Your task to perform on an android device: Open CNN.com Image 0: 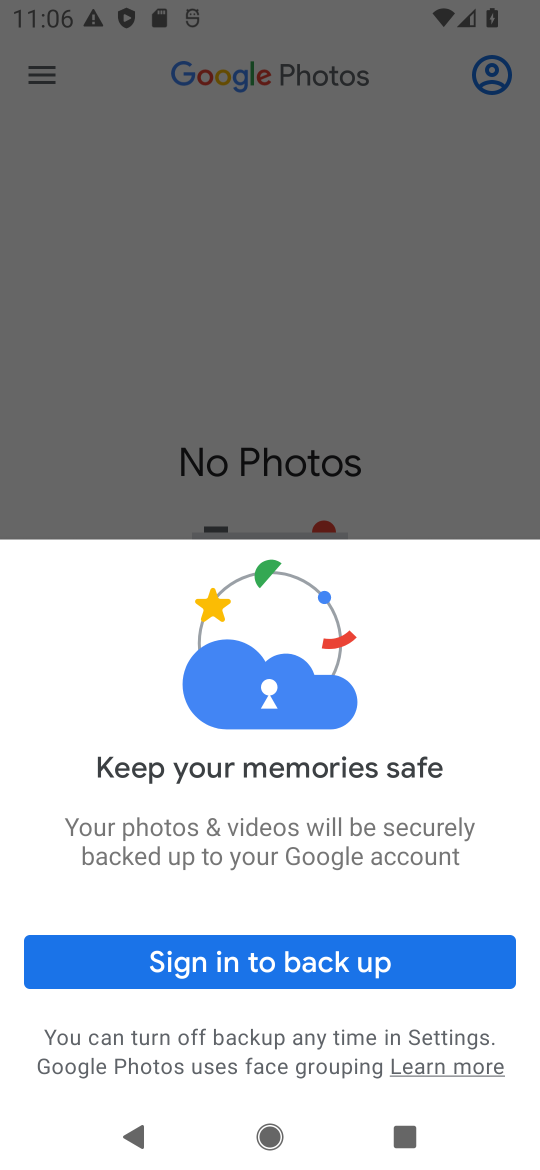
Step 0: press home button
Your task to perform on an android device: Open CNN.com Image 1: 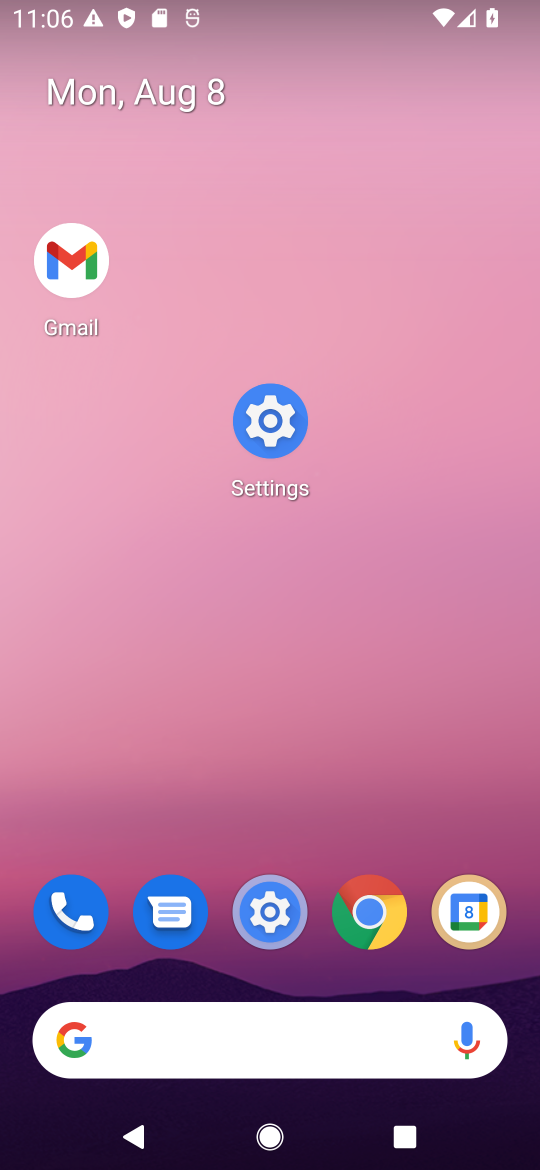
Step 1: click (367, 906)
Your task to perform on an android device: Open CNN.com Image 2: 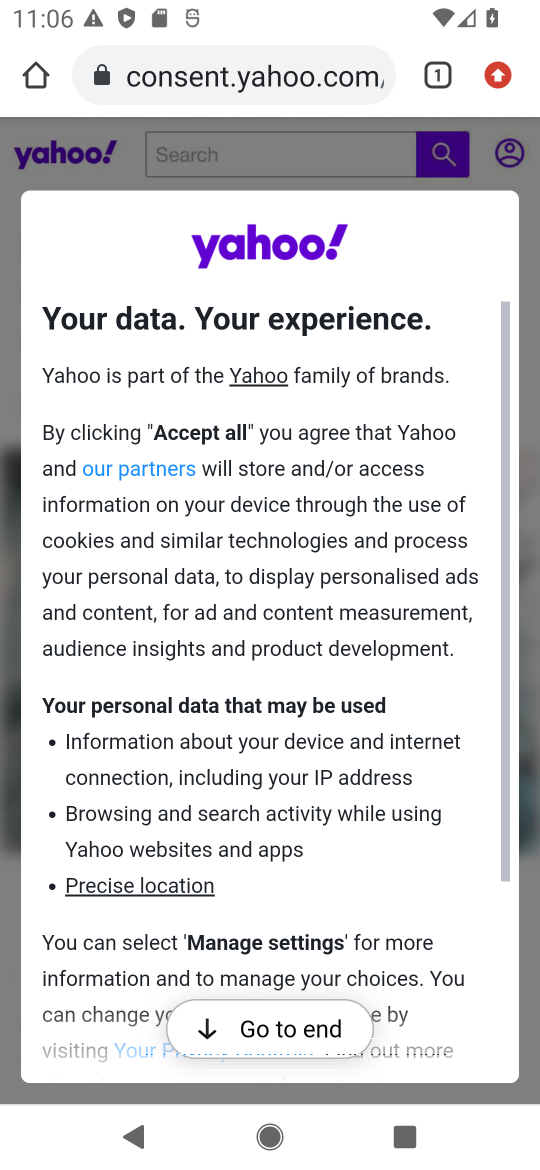
Step 2: click (440, 93)
Your task to perform on an android device: Open CNN.com Image 3: 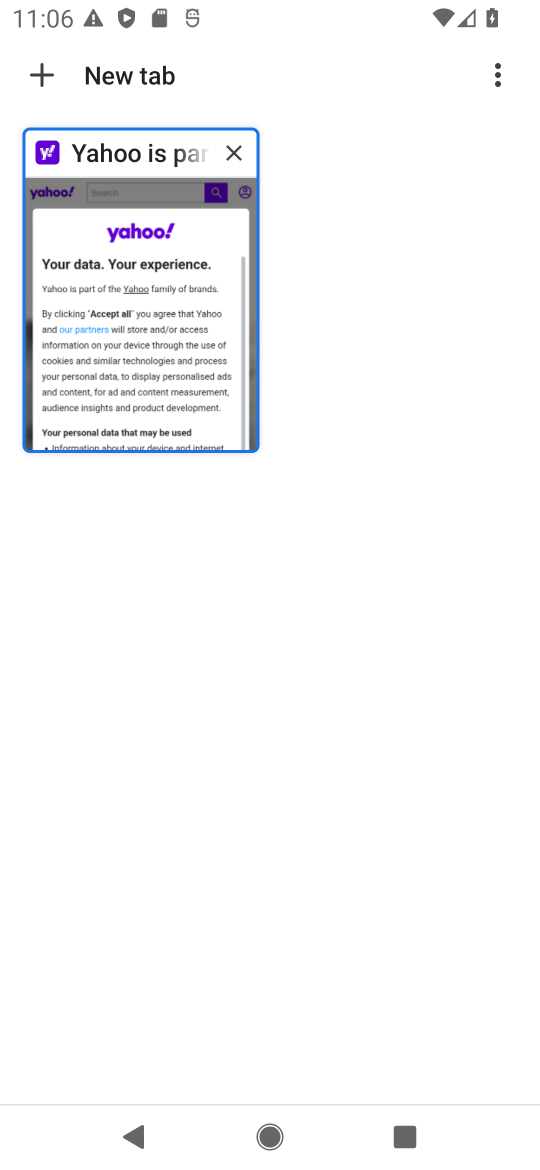
Step 3: click (44, 37)
Your task to perform on an android device: Open CNN.com Image 4: 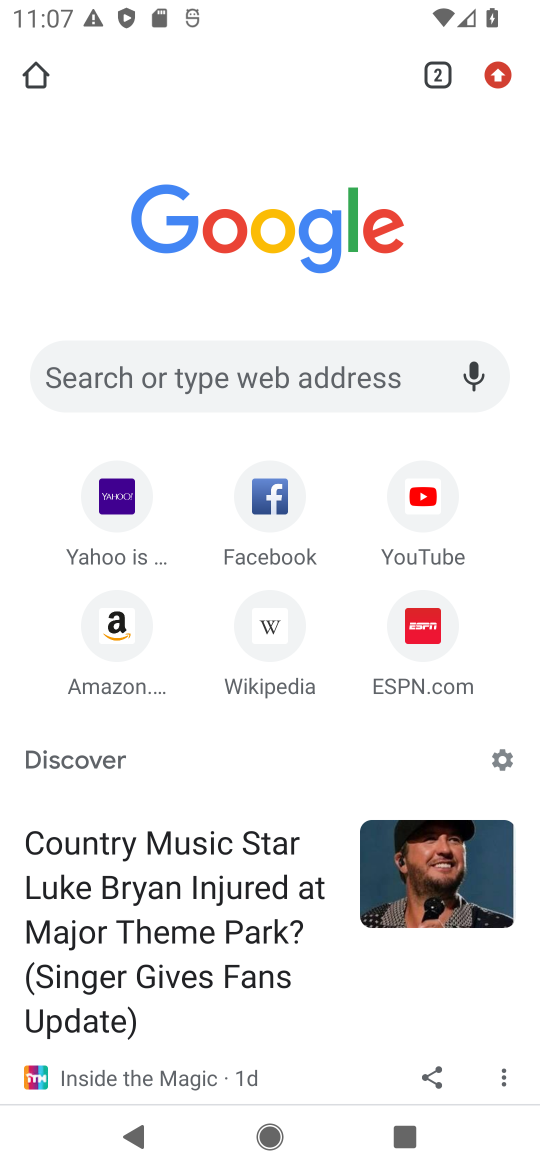
Step 4: click (223, 368)
Your task to perform on an android device: Open CNN.com Image 5: 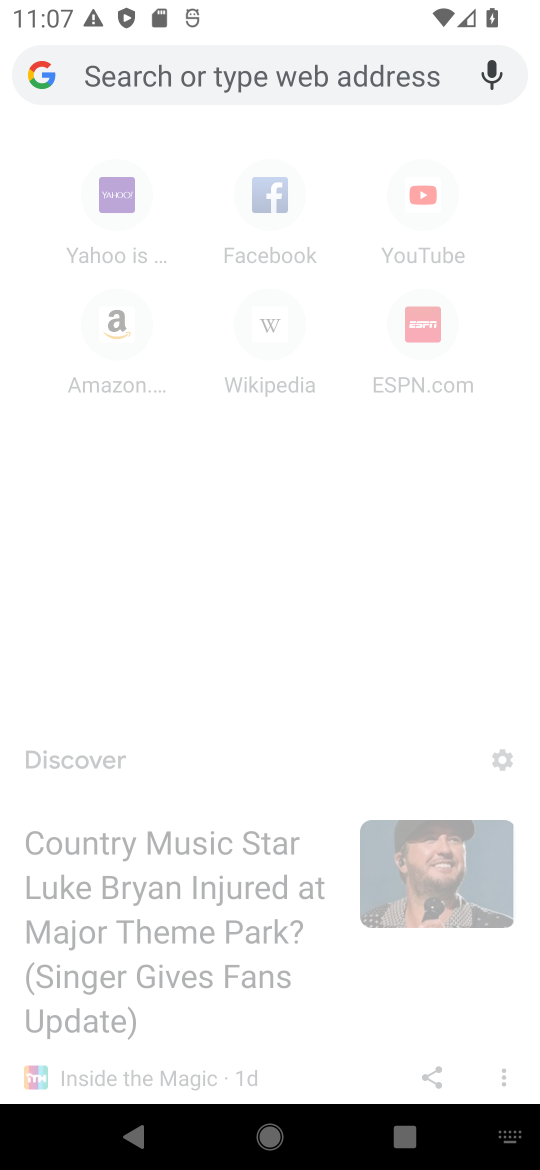
Step 5: type "cnn"
Your task to perform on an android device: Open CNN.com Image 6: 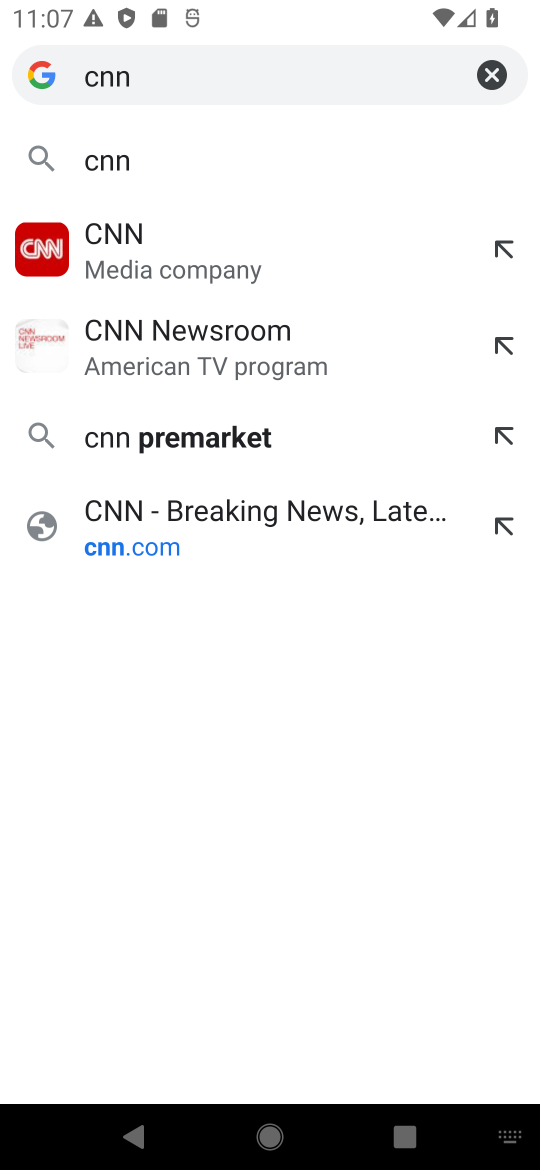
Step 6: click (142, 249)
Your task to perform on an android device: Open CNN.com Image 7: 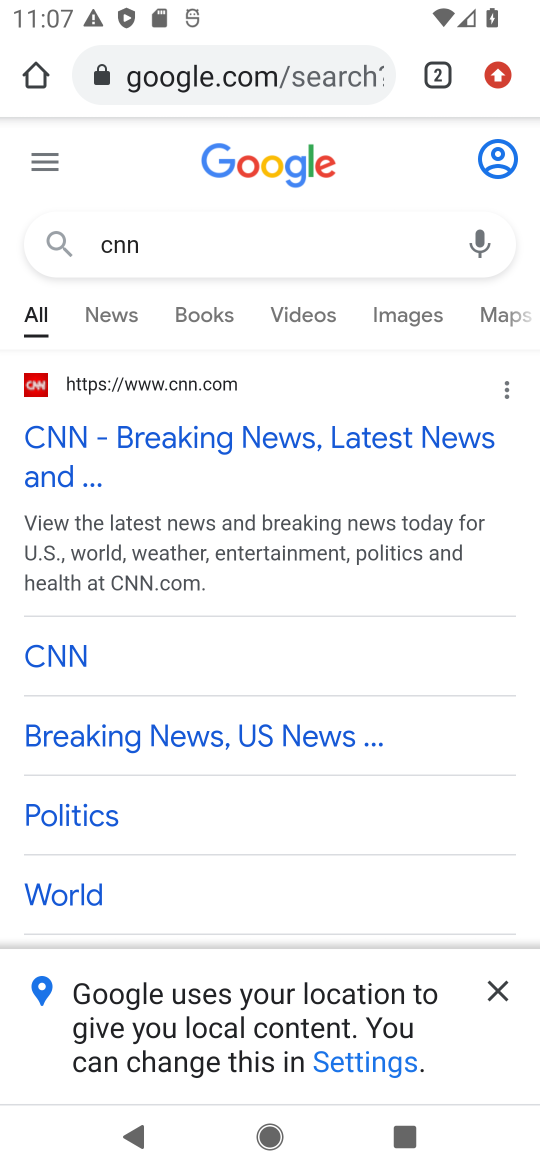
Step 7: click (132, 453)
Your task to perform on an android device: Open CNN.com Image 8: 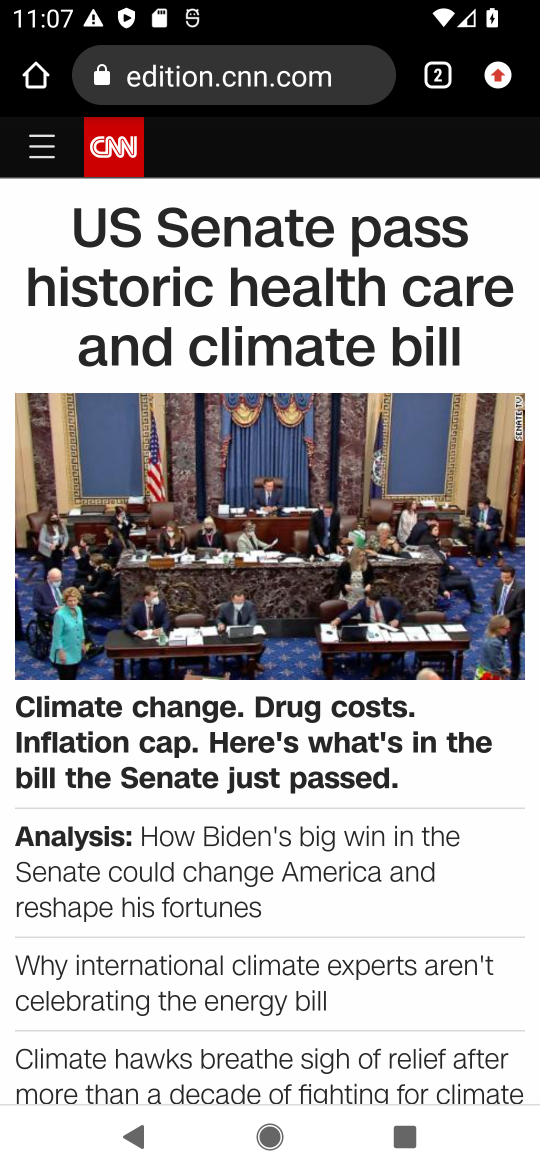
Step 8: task complete